Your task to perform on an android device: open a bookmark in the chrome app Image 0: 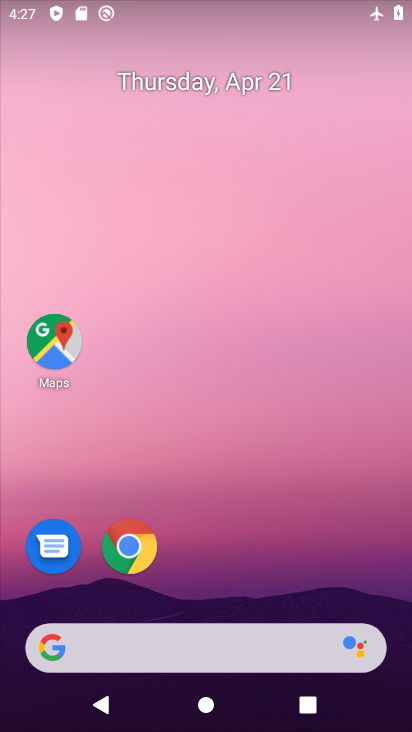
Step 0: click (140, 551)
Your task to perform on an android device: open a bookmark in the chrome app Image 1: 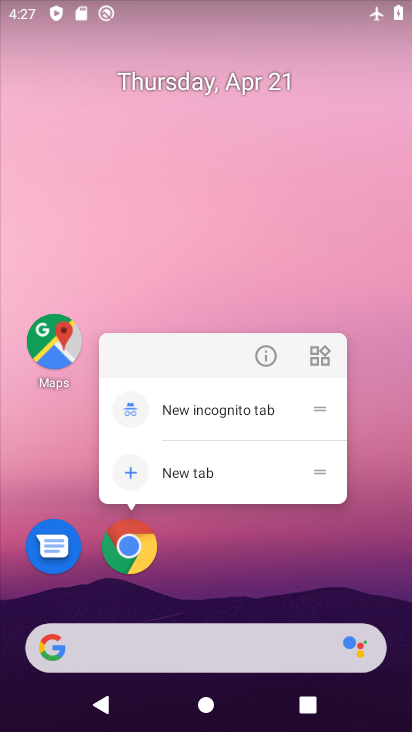
Step 1: click (142, 553)
Your task to perform on an android device: open a bookmark in the chrome app Image 2: 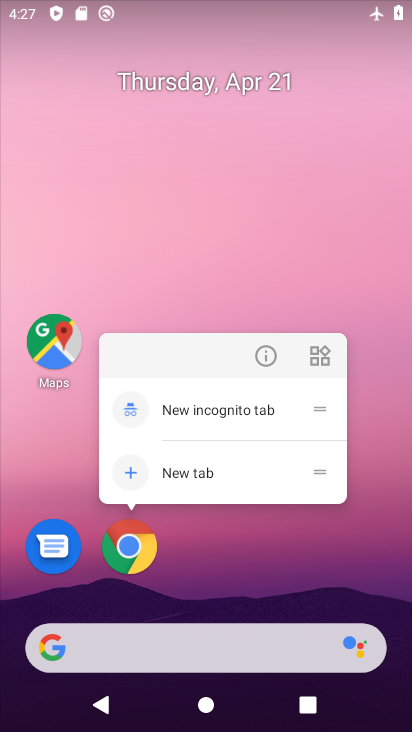
Step 2: click (153, 551)
Your task to perform on an android device: open a bookmark in the chrome app Image 3: 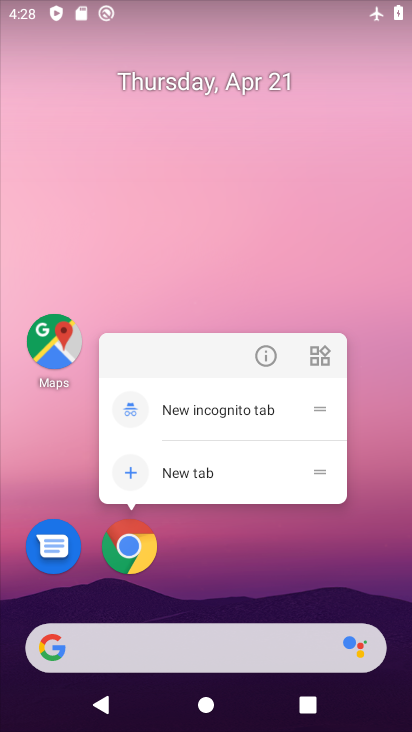
Step 3: click (136, 542)
Your task to perform on an android device: open a bookmark in the chrome app Image 4: 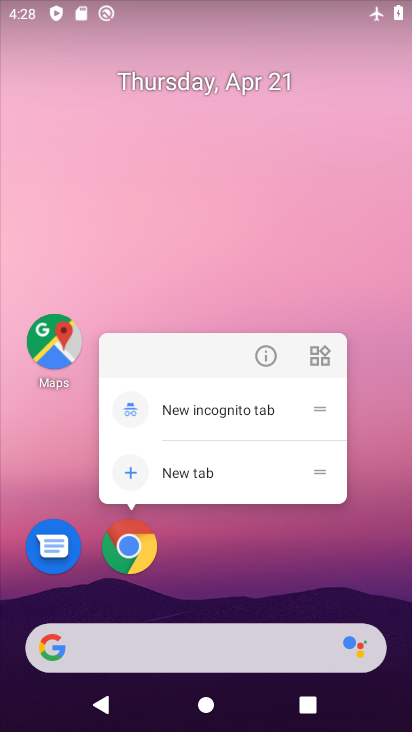
Step 4: click (127, 546)
Your task to perform on an android device: open a bookmark in the chrome app Image 5: 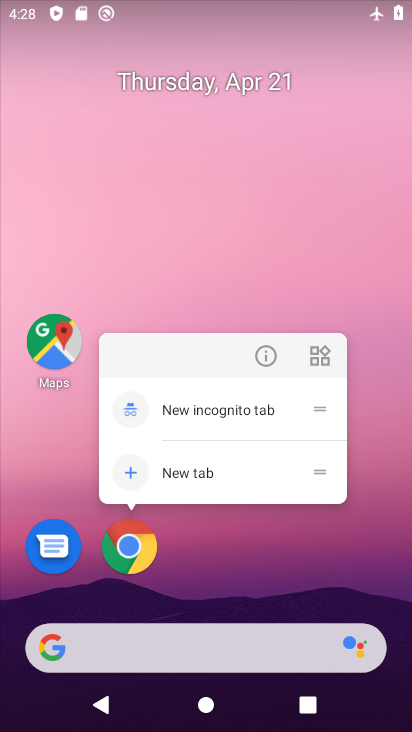
Step 5: click (133, 547)
Your task to perform on an android device: open a bookmark in the chrome app Image 6: 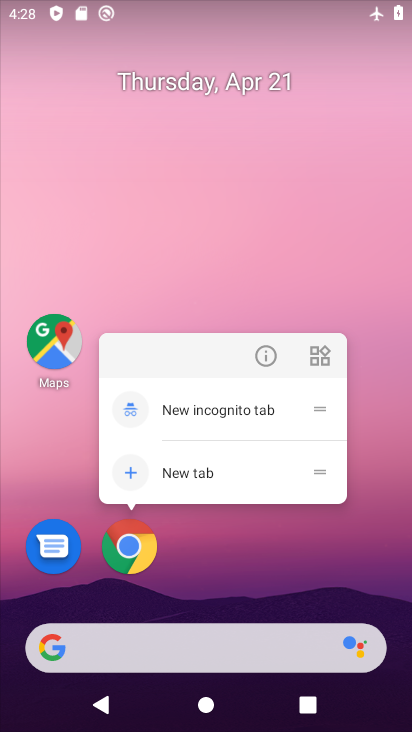
Step 6: click (137, 546)
Your task to perform on an android device: open a bookmark in the chrome app Image 7: 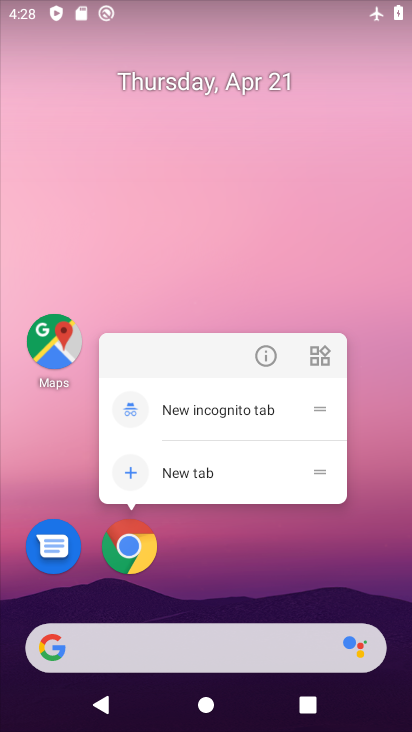
Step 7: click (135, 544)
Your task to perform on an android device: open a bookmark in the chrome app Image 8: 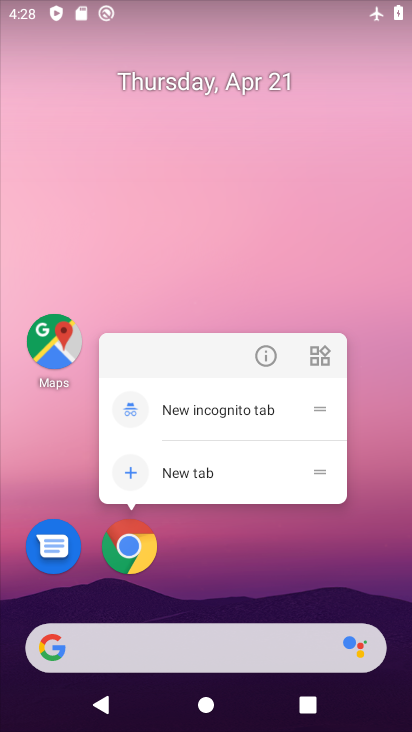
Step 8: click (135, 544)
Your task to perform on an android device: open a bookmark in the chrome app Image 9: 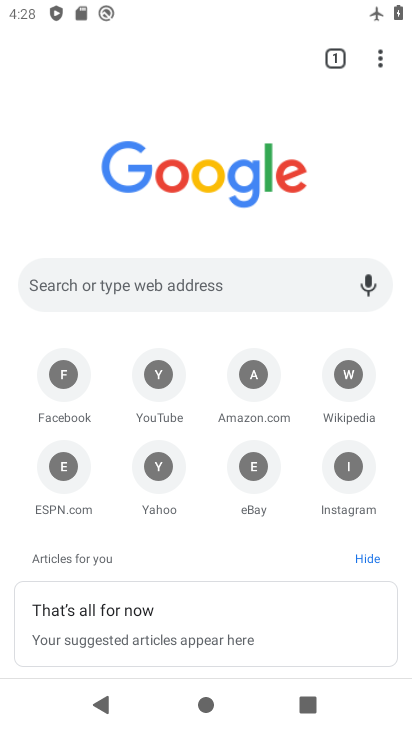
Step 9: click (383, 60)
Your task to perform on an android device: open a bookmark in the chrome app Image 10: 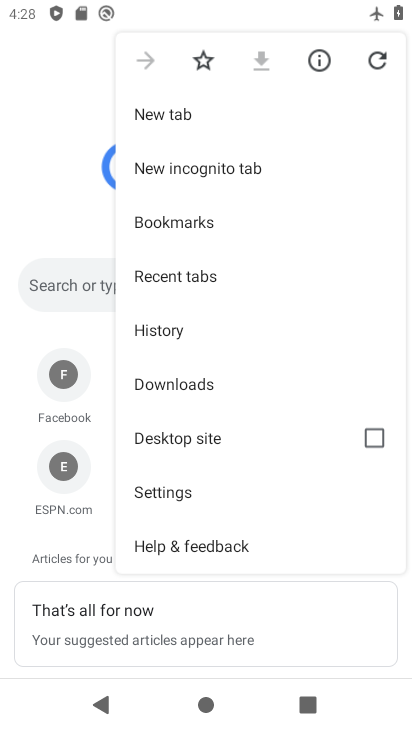
Step 10: click (172, 215)
Your task to perform on an android device: open a bookmark in the chrome app Image 11: 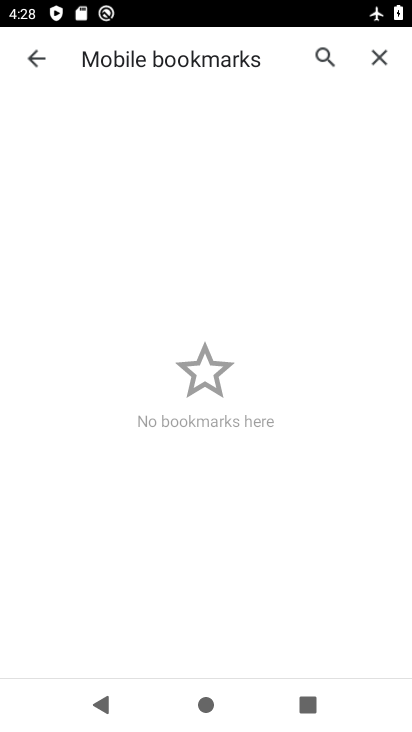
Step 11: task complete